Your task to perform on an android device: allow notifications from all sites in the chrome app Image 0: 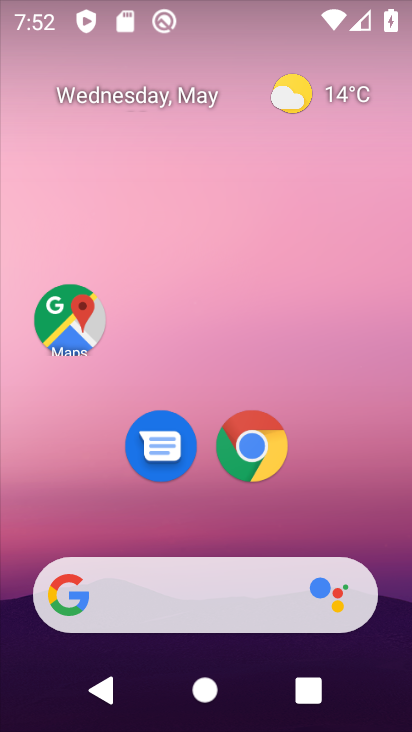
Step 0: click (255, 458)
Your task to perform on an android device: allow notifications from all sites in the chrome app Image 1: 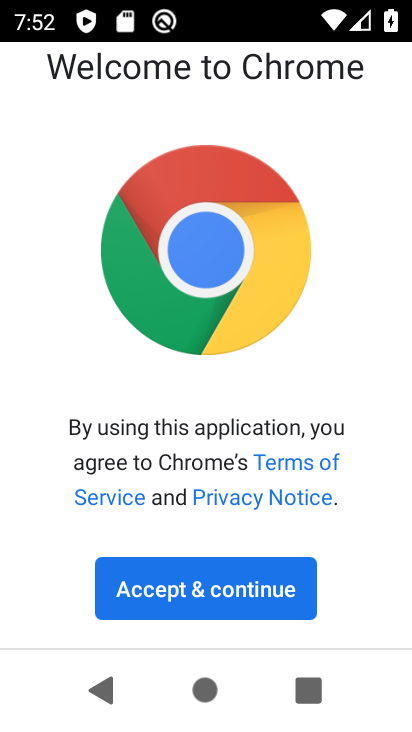
Step 1: click (264, 591)
Your task to perform on an android device: allow notifications from all sites in the chrome app Image 2: 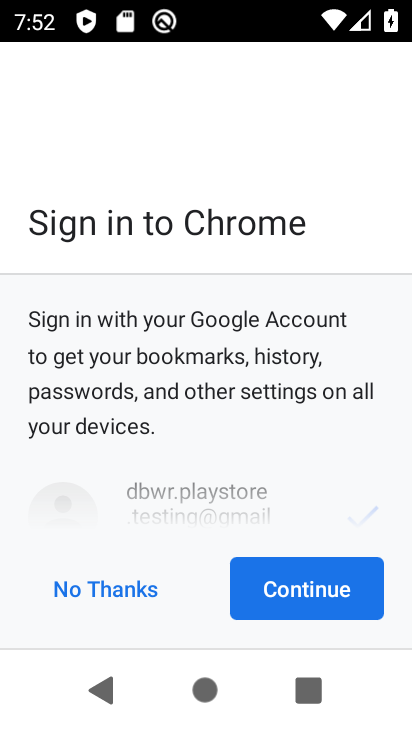
Step 2: click (264, 591)
Your task to perform on an android device: allow notifications from all sites in the chrome app Image 3: 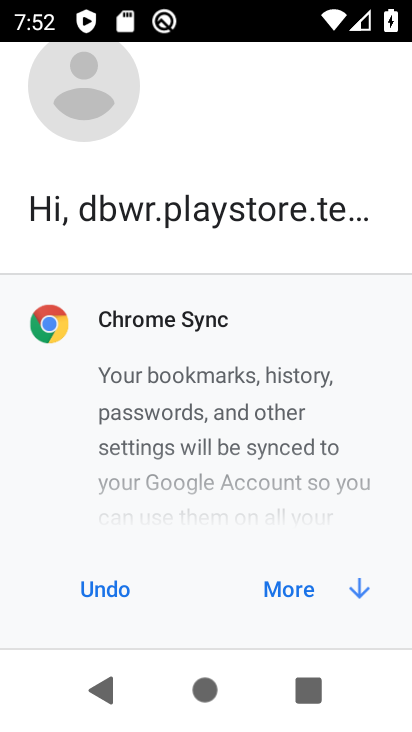
Step 3: click (265, 590)
Your task to perform on an android device: allow notifications from all sites in the chrome app Image 4: 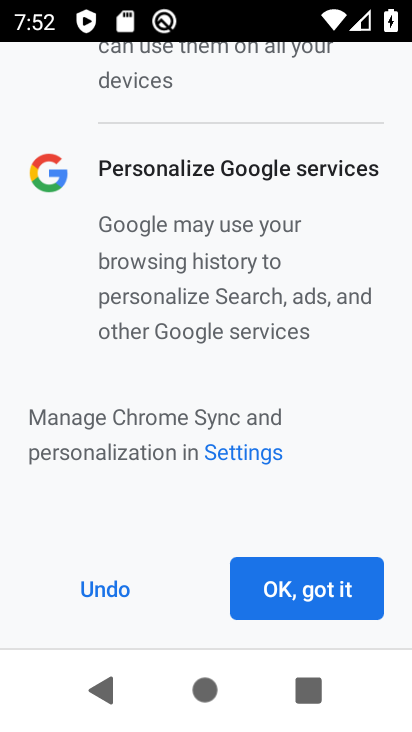
Step 4: click (266, 586)
Your task to perform on an android device: allow notifications from all sites in the chrome app Image 5: 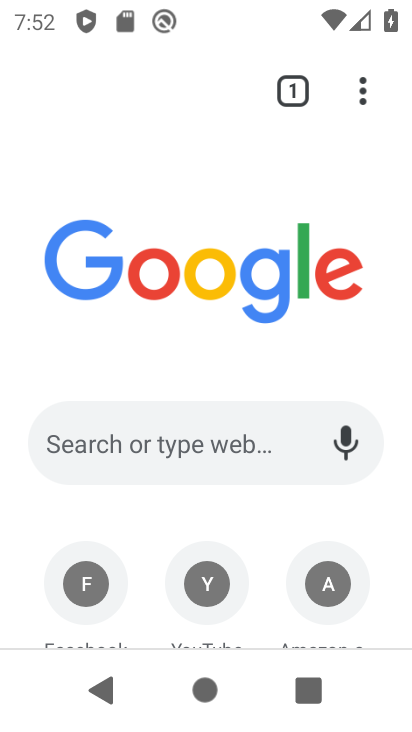
Step 5: drag from (363, 83) to (147, 477)
Your task to perform on an android device: allow notifications from all sites in the chrome app Image 6: 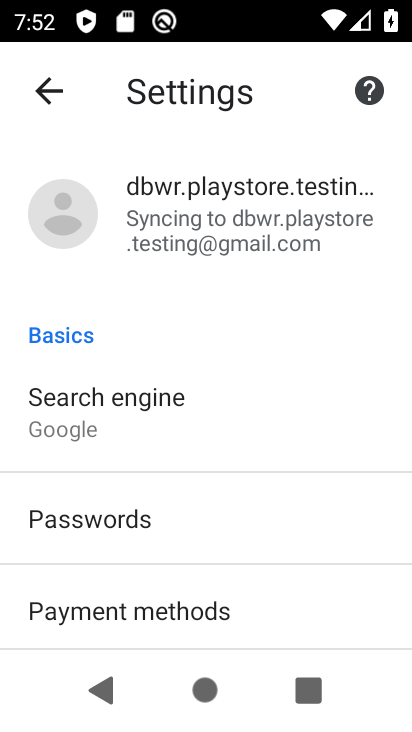
Step 6: drag from (131, 514) to (131, 231)
Your task to perform on an android device: allow notifications from all sites in the chrome app Image 7: 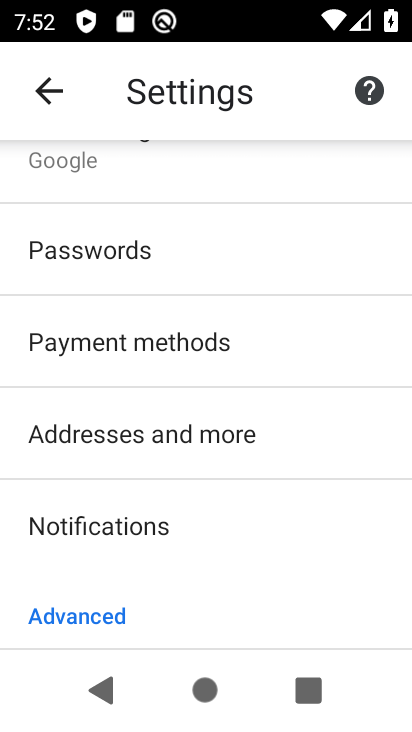
Step 7: click (125, 525)
Your task to perform on an android device: allow notifications from all sites in the chrome app Image 8: 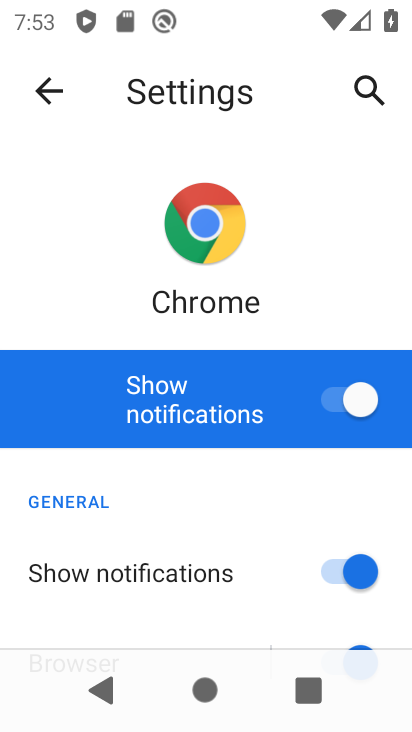
Step 8: task complete